Your task to perform on an android device: see creations saved in the google photos Image 0: 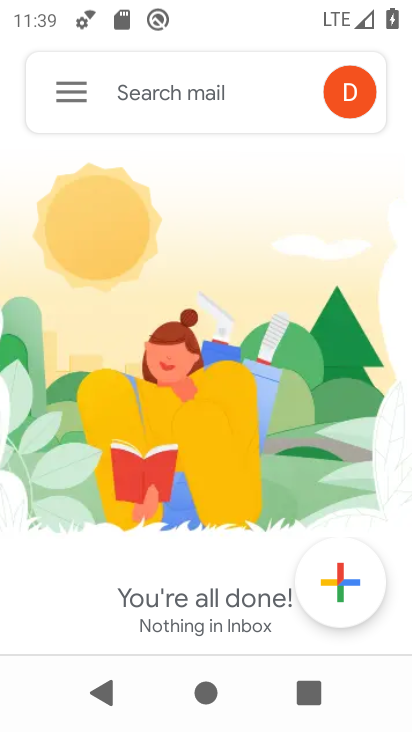
Step 0: press home button
Your task to perform on an android device: see creations saved in the google photos Image 1: 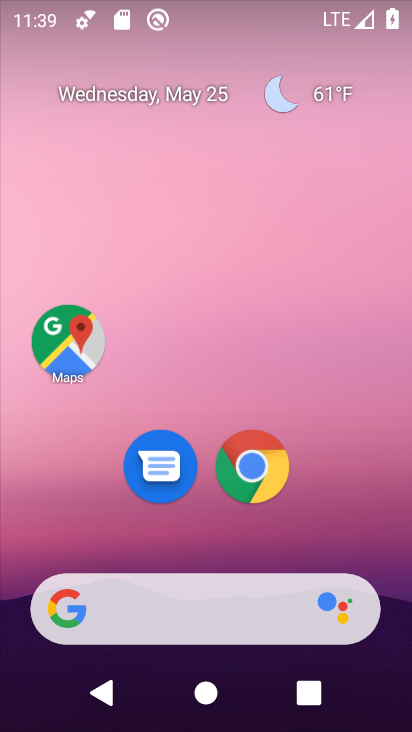
Step 1: drag from (188, 540) to (173, 6)
Your task to perform on an android device: see creations saved in the google photos Image 2: 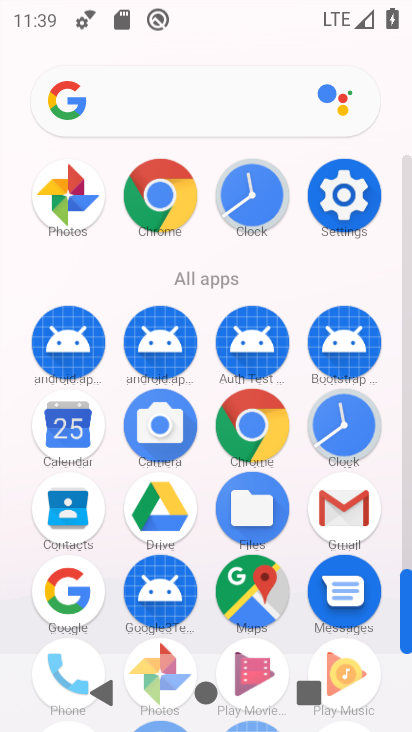
Step 2: drag from (207, 580) to (211, 211)
Your task to perform on an android device: see creations saved in the google photos Image 3: 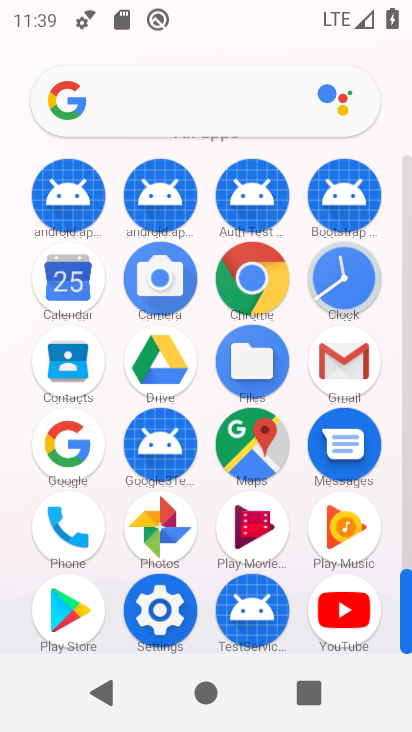
Step 3: click (164, 518)
Your task to perform on an android device: see creations saved in the google photos Image 4: 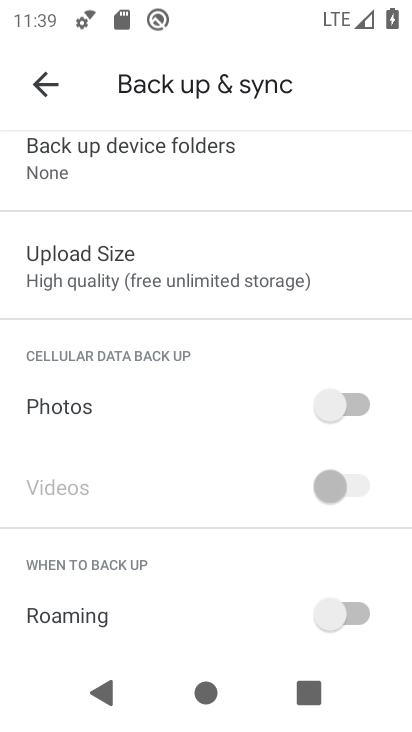
Step 4: click (41, 87)
Your task to perform on an android device: see creations saved in the google photos Image 5: 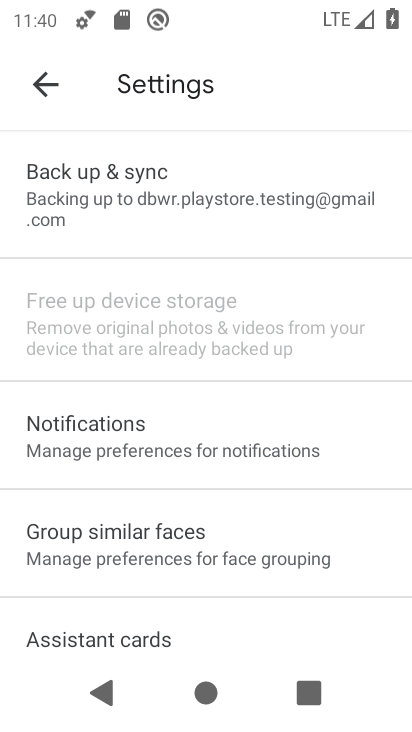
Step 5: click (41, 87)
Your task to perform on an android device: see creations saved in the google photos Image 6: 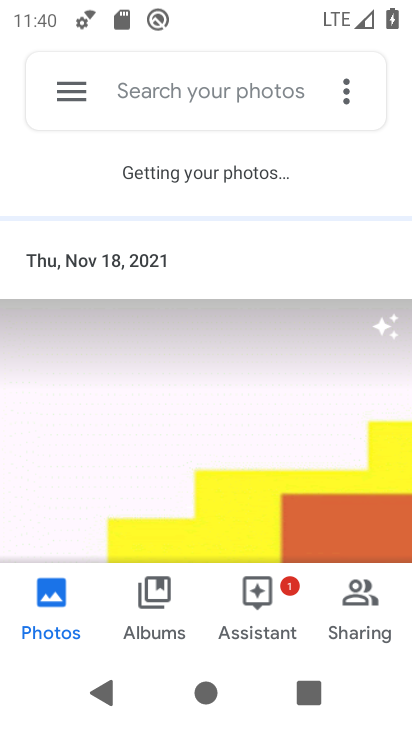
Step 6: click (243, 97)
Your task to perform on an android device: see creations saved in the google photos Image 7: 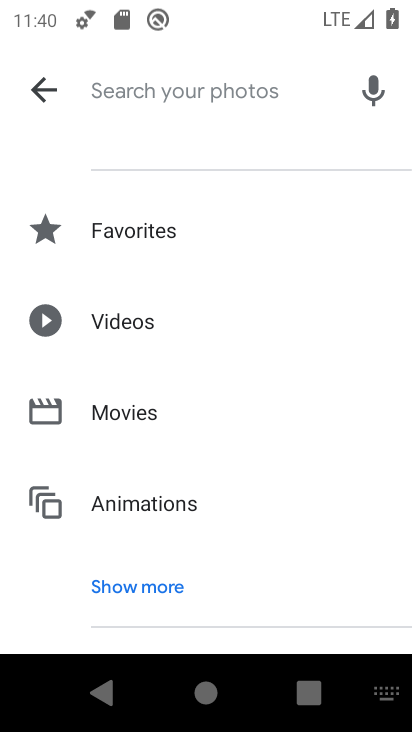
Step 7: type "creations"
Your task to perform on an android device: see creations saved in the google photos Image 8: 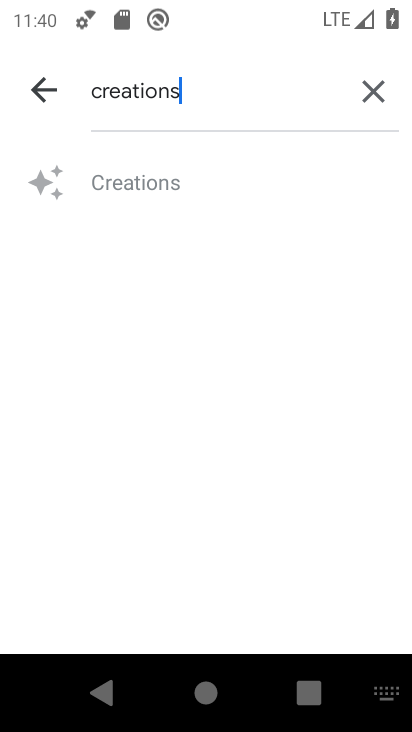
Step 8: click (125, 181)
Your task to perform on an android device: see creations saved in the google photos Image 9: 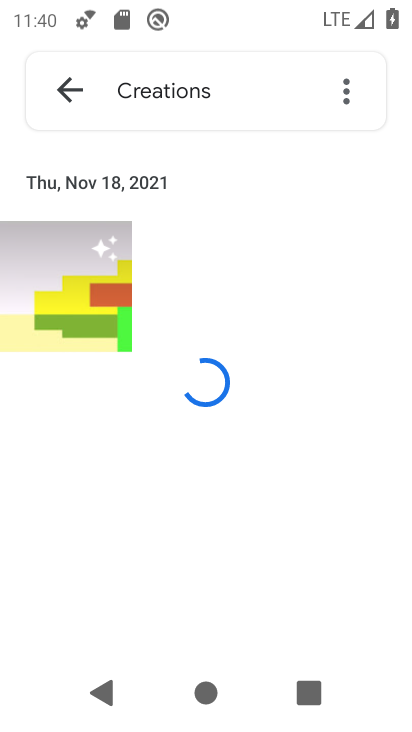
Step 9: task complete